Your task to perform on an android device: Open Reddit.com Image 0: 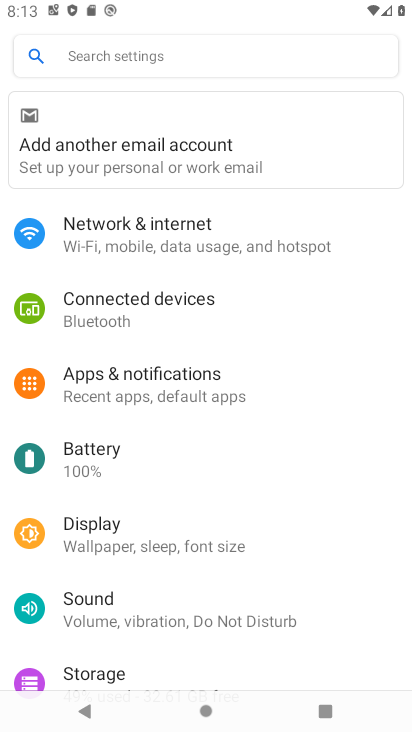
Step 0: press home button
Your task to perform on an android device: Open Reddit.com Image 1: 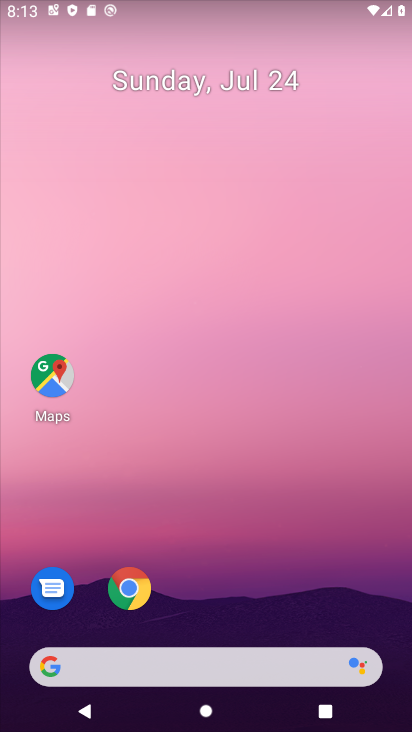
Step 1: click (143, 685)
Your task to perform on an android device: Open Reddit.com Image 2: 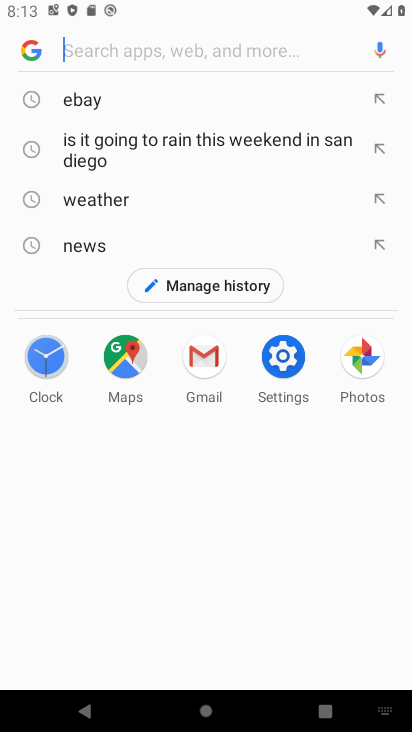
Step 2: type "reddit.com"
Your task to perform on an android device: Open Reddit.com Image 3: 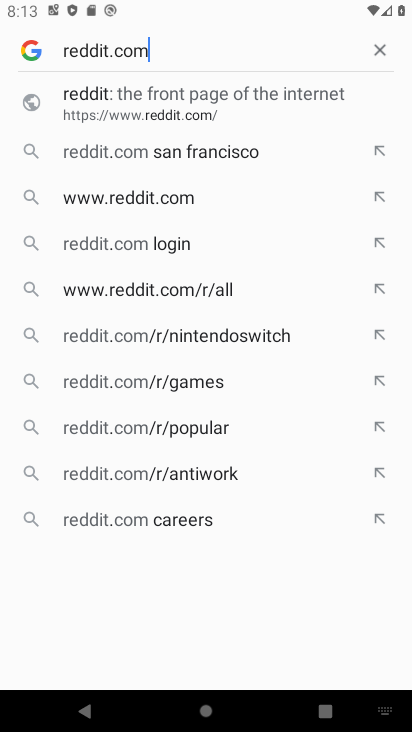
Step 3: click (195, 105)
Your task to perform on an android device: Open Reddit.com Image 4: 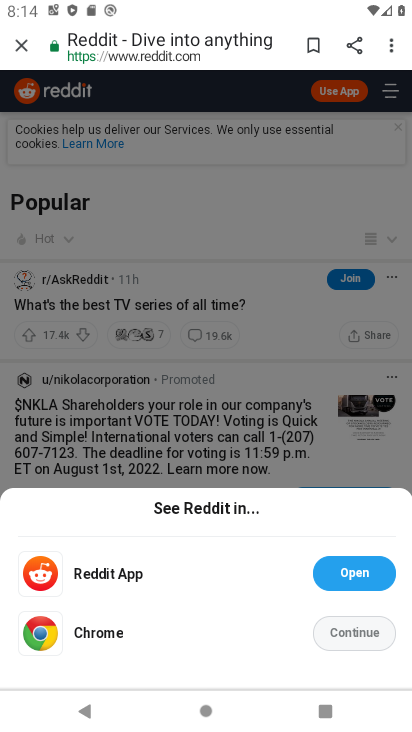
Step 4: task complete